Your task to perform on an android device: turn on data saver in the chrome app Image 0: 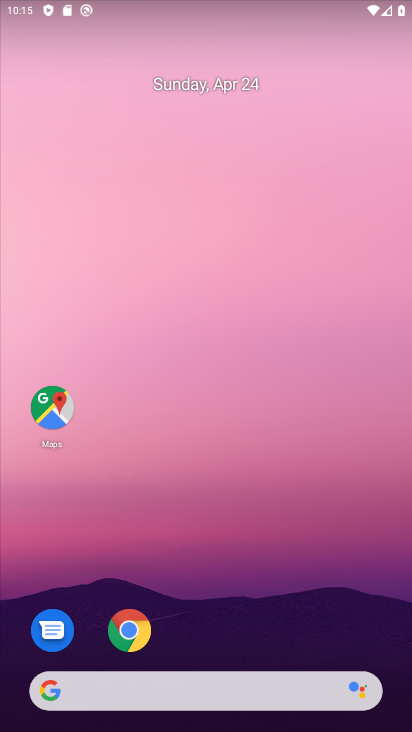
Step 0: click (382, 68)
Your task to perform on an android device: turn on data saver in the chrome app Image 1: 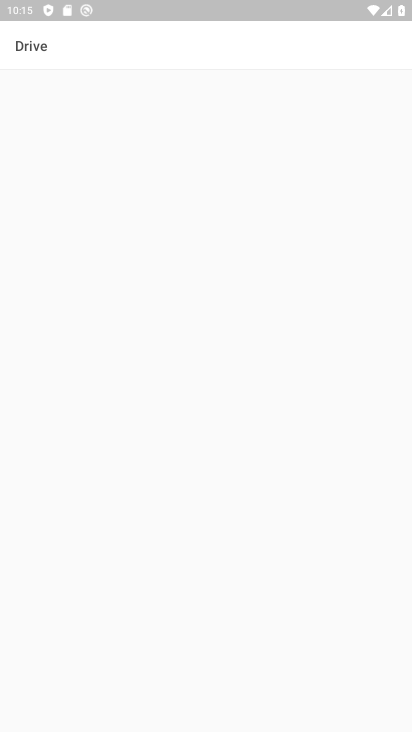
Step 1: press home button
Your task to perform on an android device: turn on data saver in the chrome app Image 2: 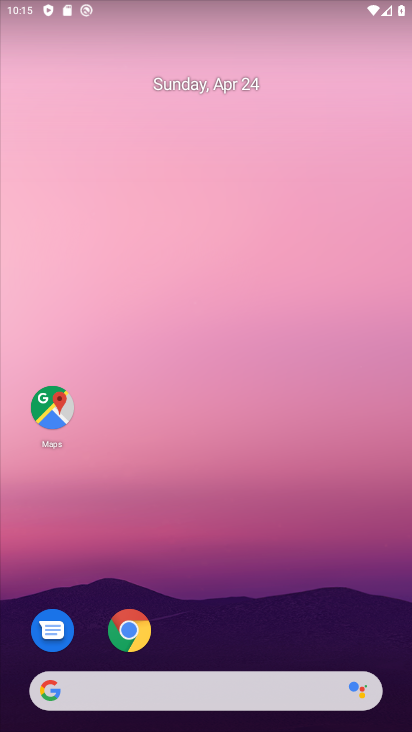
Step 2: drag from (264, 564) to (375, 81)
Your task to perform on an android device: turn on data saver in the chrome app Image 3: 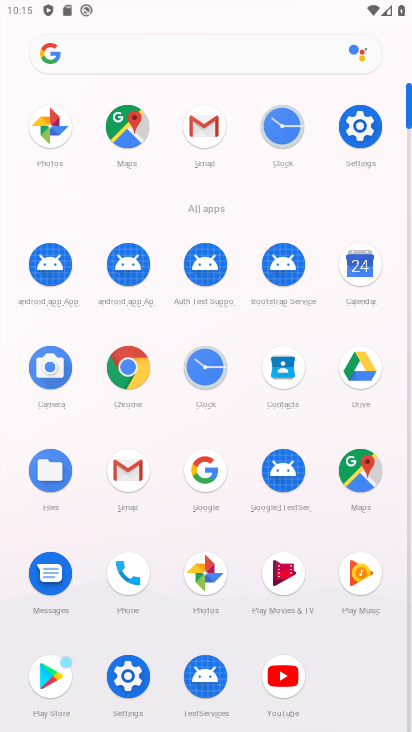
Step 3: click (122, 378)
Your task to perform on an android device: turn on data saver in the chrome app Image 4: 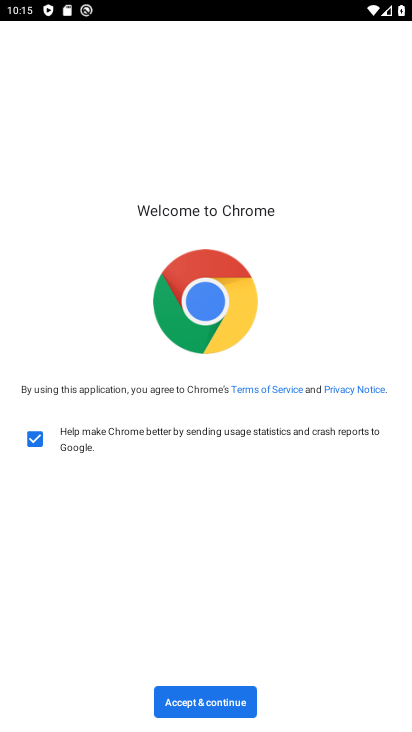
Step 4: click (209, 711)
Your task to perform on an android device: turn on data saver in the chrome app Image 5: 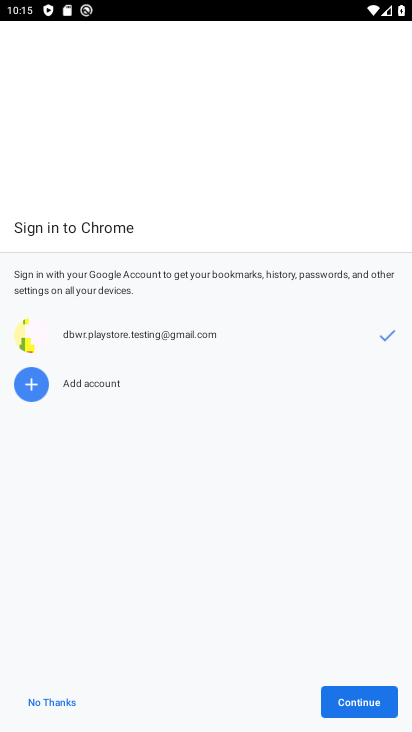
Step 5: click (329, 702)
Your task to perform on an android device: turn on data saver in the chrome app Image 6: 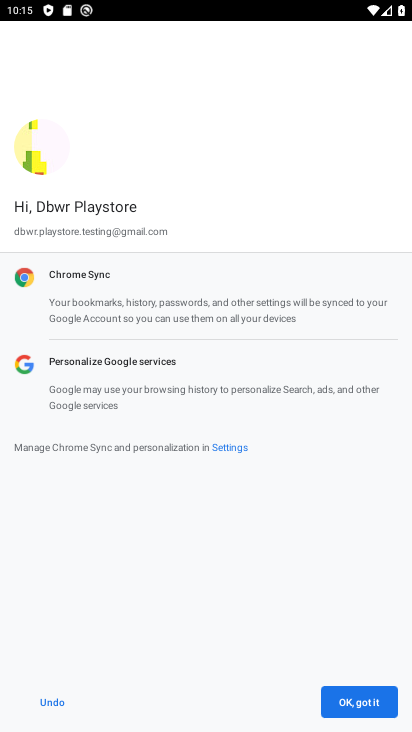
Step 6: click (329, 702)
Your task to perform on an android device: turn on data saver in the chrome app Image 7: 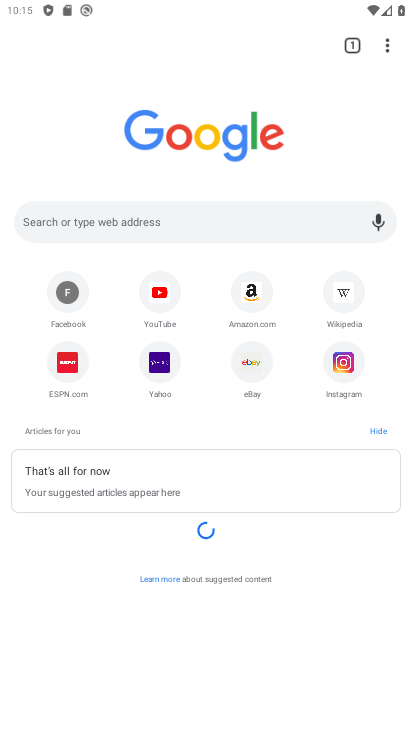
Step 7: drag from (384, 54) to (312, 375)
Your task to perform on an android device: turn on data saver in the chrome app Image 8: 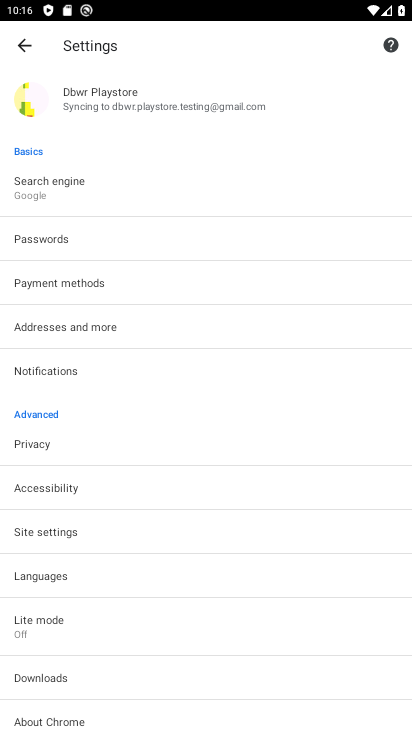
Step 8: click (110, 627)
Your task to perform on an android device: turn on data saver in the chrome app Image 9: 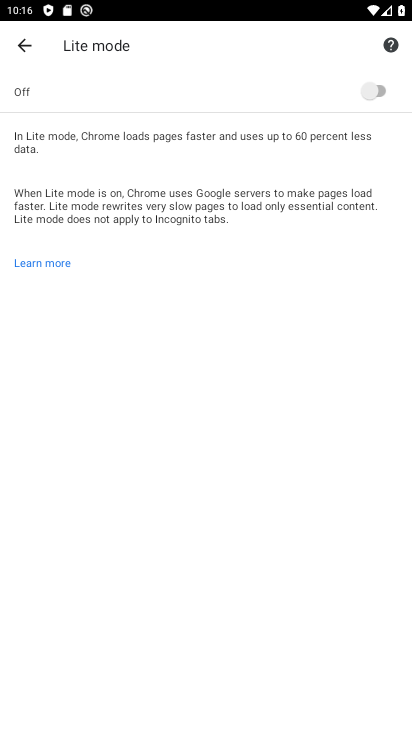
Step 9: click (397, 84)
Your task to perform on an android device: turn on data saver in the chrome app Image 10: 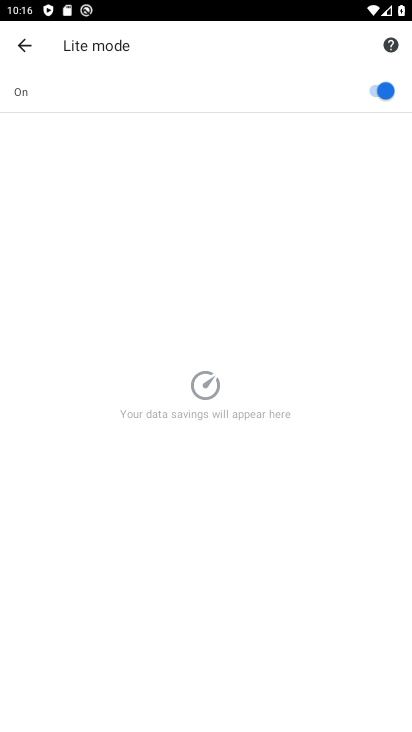
Step 10: task complete